Your task to perform on an android device: manage bookmarks in the chrome app Image 0: 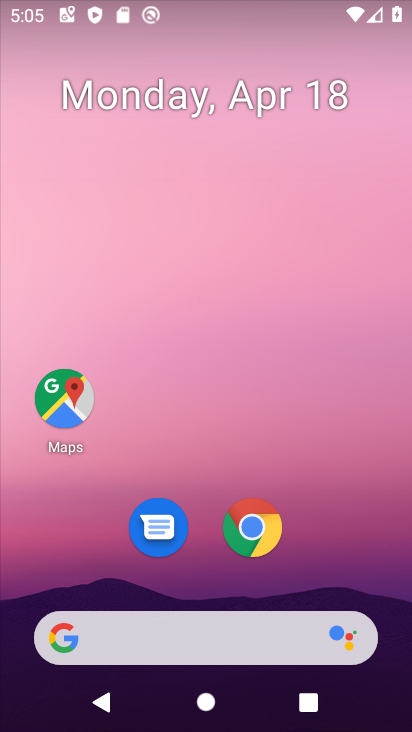
Step 0: click (256, 524)
Your task to perform on an android device: manage bookmarks in the chrome app Image 1: 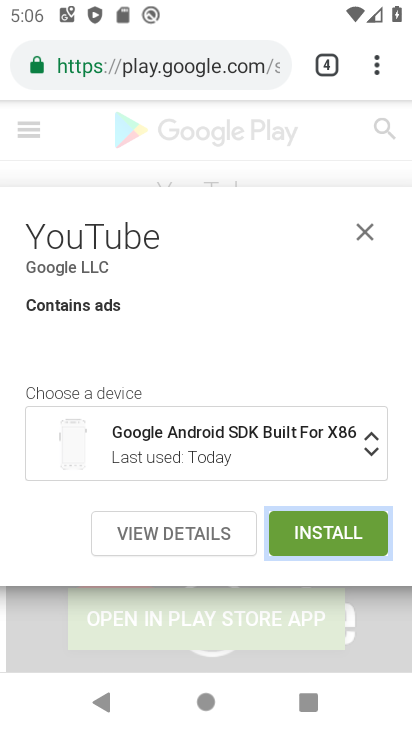
Step 1: click (371, 231)
Your task to perform on an android device: manage bookmarks in the chrome app Image 2: 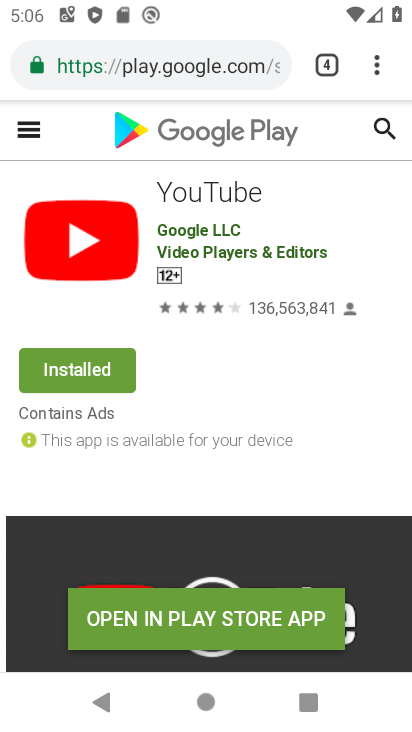
Step 2: click (324, 67)
Your task to perform on an android device: manage bookmarks in the chrome app Image 3: 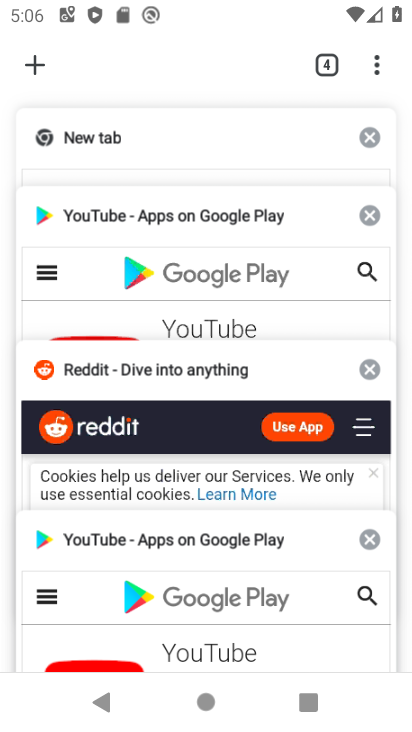
Step 3: click (370, 134)
Your task to perform on an android device: manage bookmarks in the chrome app Image 4: 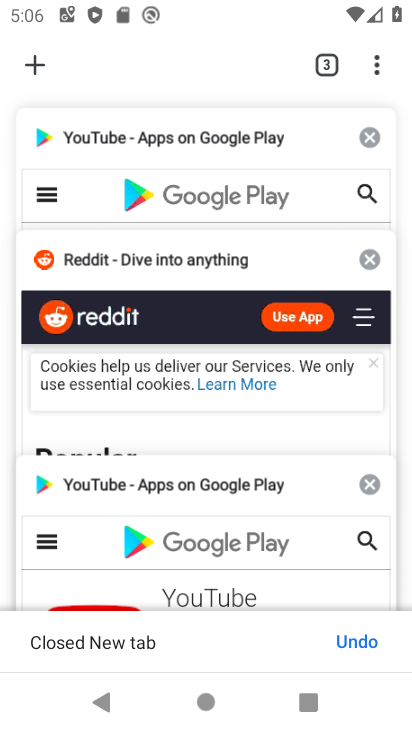
Step 4: click (370, 134)
Your task to perform on an android device: manage bookmarks in the chrome app Image 5: 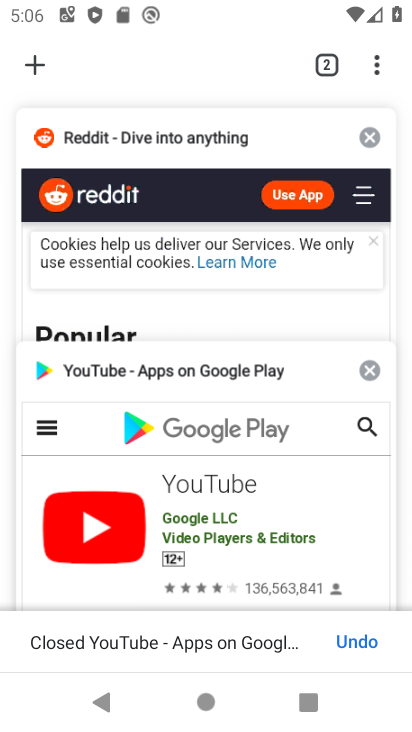
Step 5: click (370, 134)
Your task to perform on an android device: manage bookmarks in the chrome app Image 6: 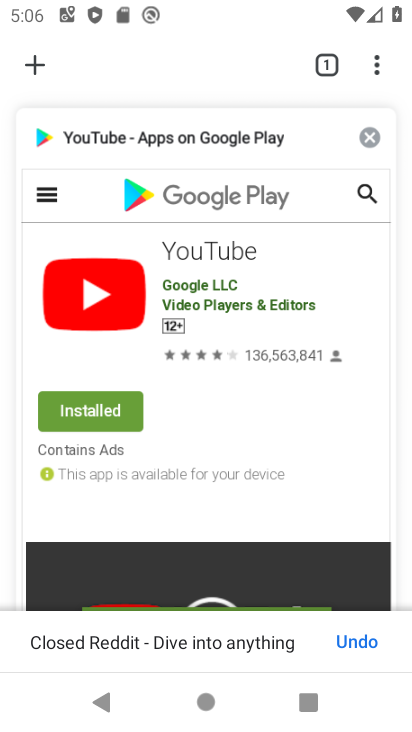
Step 6: click (370, 134)
Your task to perform on an android device: manage bookmarks in the chrome app Image 7: 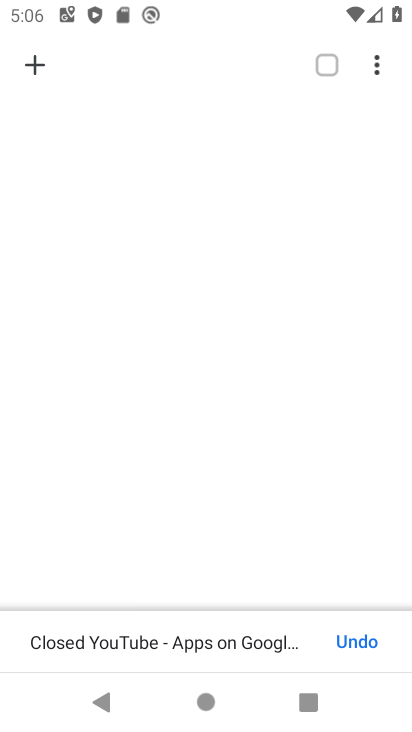
Step 7: click (29, 60)
Your task to perform on an android device: manage bookmarks in the chrome app Image 8: 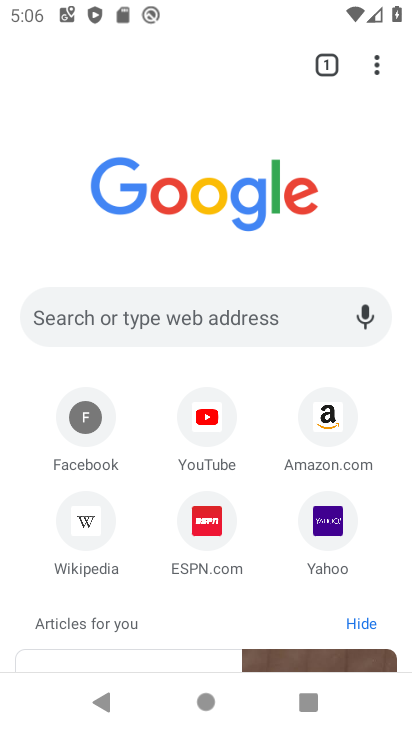
Step 8: click (380, 69)
Your task to perform on an android device: manage bookmarks in the chrome app Image 9: 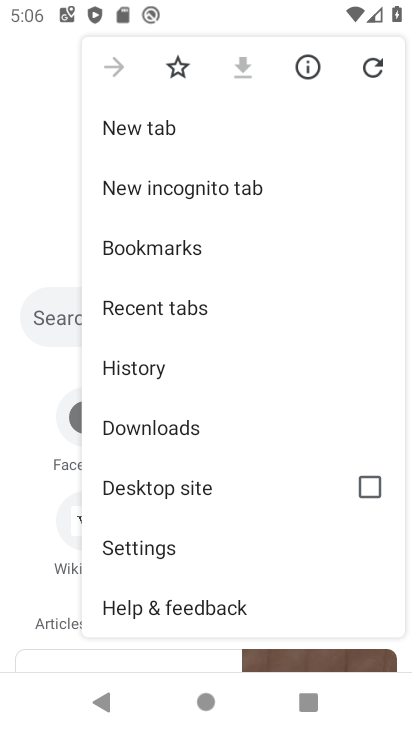
Step 9: click (195, 244)
Your task to perform on an android device: manage bookmarks in the chrome app Image 10: 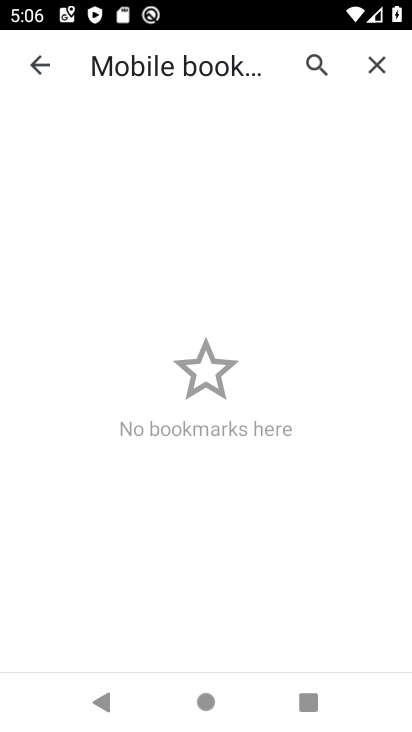
Step 10: task complete